Your task to perform on an android device: open app "Spotify: Music and Podcasts" (install if not already installed) and enter user name: "principled@inbox.com" and password: "arrests" Image 0: 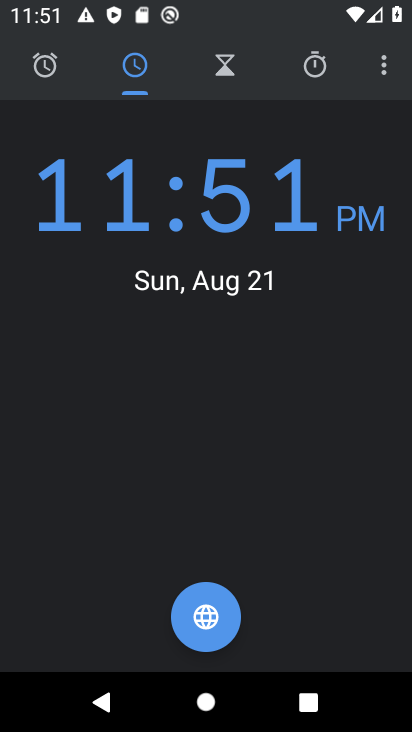
Step 0: press back button
Your task to perform on an android device: open app "Spotify: Music and Podcasts" (install if not already installed) and enter user name: "principled@inbox.com" and password: "arrests" Image 1: 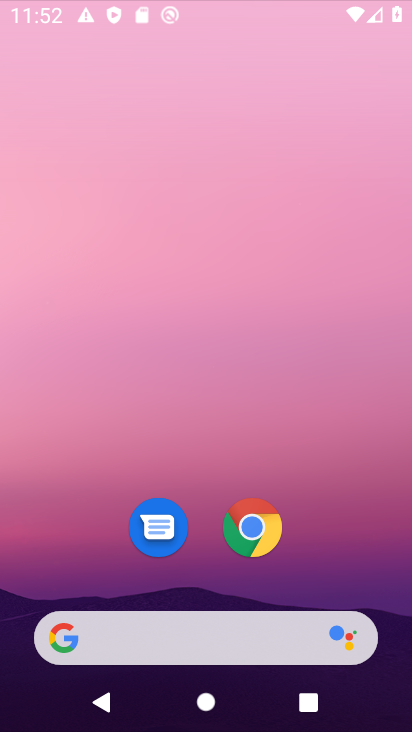
Step 1: drag from (130, 579) to (244, 9)
Your task to perform on an android device: open app "Spotify: Music and Podcasts" (install if not already installed) and enter user name: "principled@inbox.com" and password: "arrests" Image 2: 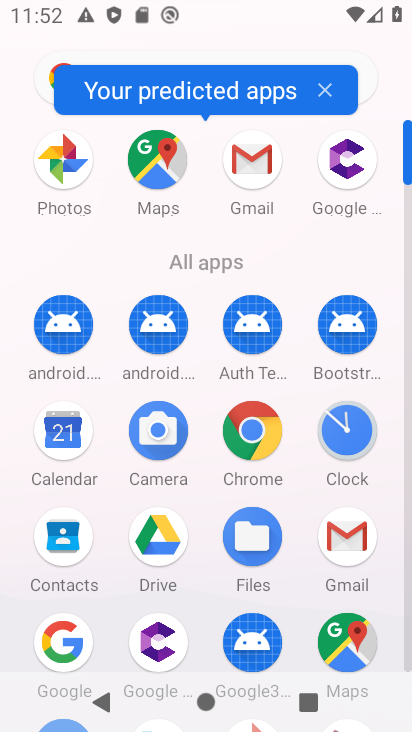
Step 2: drag from (174, 613) to (260, 77)
Your task to perform on an android device: open app "Spotify: Music and Podcasts" (install if not already installed) and enter user name: "principled@inbox.com" and password: "arrests" Image 3: 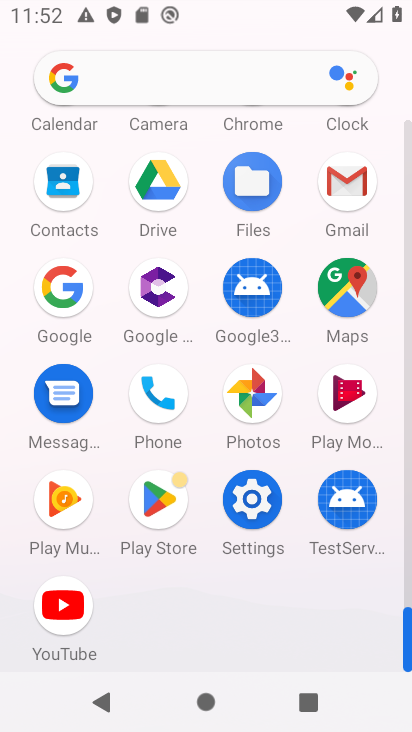
Step 3: click (163, 501)
Your task to perform on an android device: open app "Spotify: Music and Podcasts" (install if not already installed) and enter user name: "principled@inbox.com" and password: "arrests" Image 4: 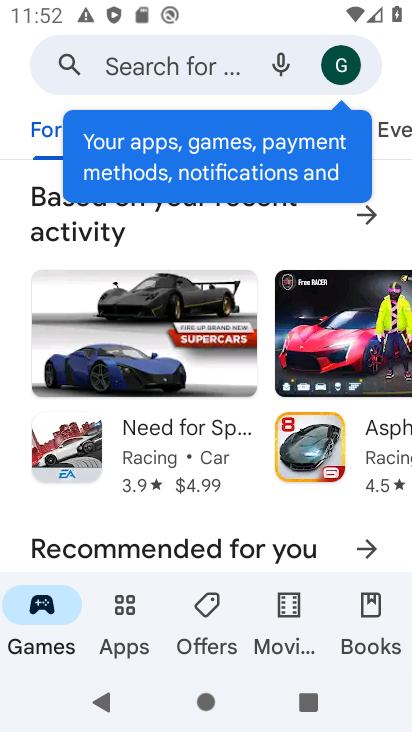
Step 4: click (193, 62)
Your task to perform on an android device: open app "Spotify: Music and Podcasts" (install if not already installed) and enter user name: "principled@inbox.com" and password: "arrests" Image 5: 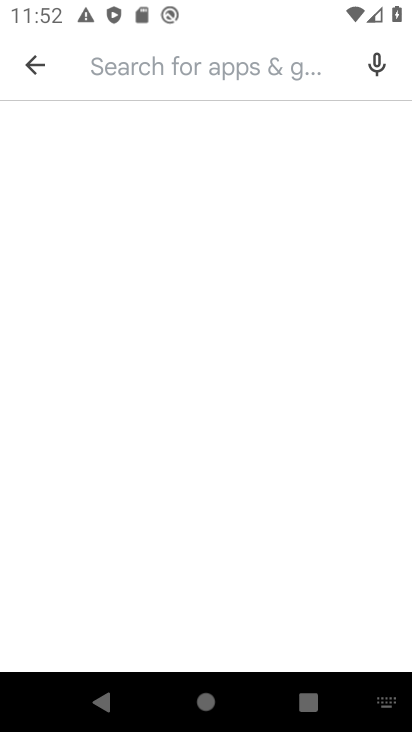
Step 5: click (162, 79)
Your task to perform on an android device: open app "Spotify: Music and Podcasts" (install if not already installed) and enter user name: "principled@inbox.com" and password: "arrests" Image 6: 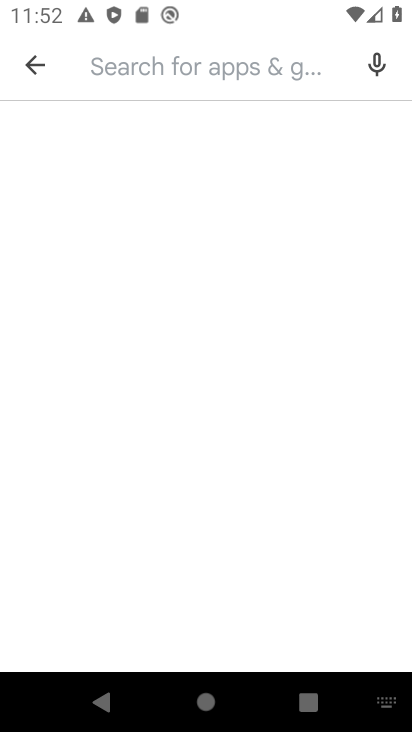
Step 6: type "Spotify: Music and Podcasts"
Your task to perform on an android device: open app "Spotify: Music and Podcasts" (install if not already installed) and enter user name: "principled@inbox.com" and password: "arrests" Image 7: 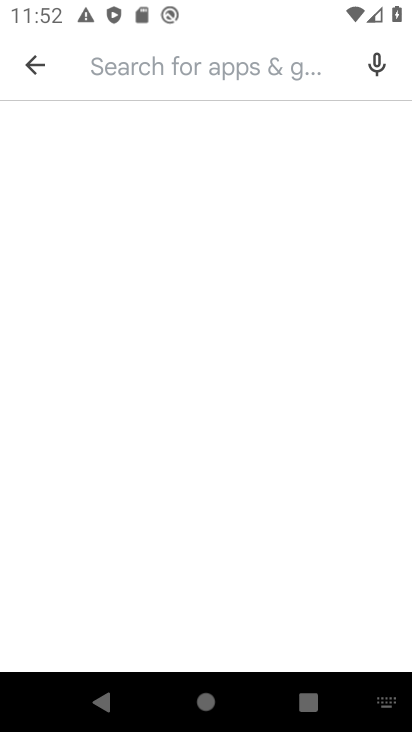
Step 7: click (300, 323)
Your task to perform on an android device: open app "Spotify: Music and Podcasts" (install if not already installed) and enter user name: "principled@inbox.com" and password: "arrests" Image 8: 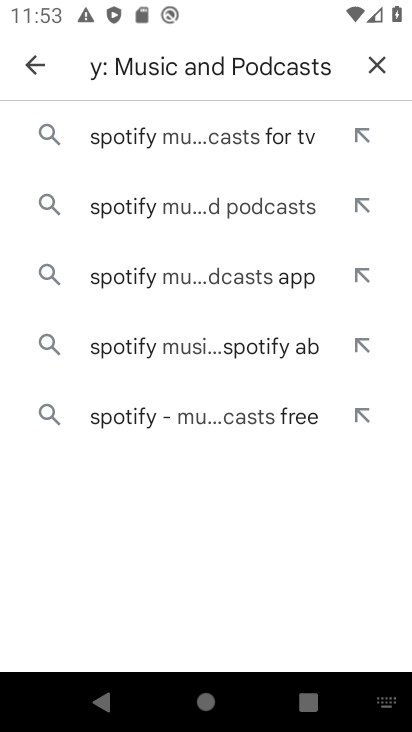
Step 8: click (189, 133)
Your task to perform on an android device: open app "Spotify: Music and Podcasts" (install if not already installed) and enter user name: "principled@inbox.com" and password: "arrests" Image 9: 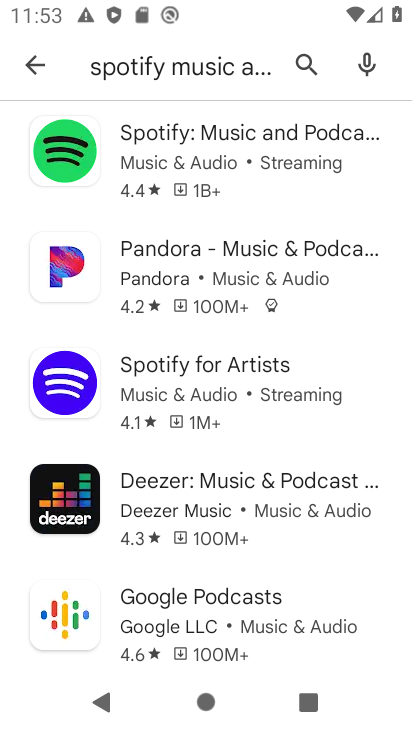
Step 9: click (195, 143)
Your task to perform on an android device: open app "Spotify: Music and Podcasts" (install if not already installed) and enter user name: "principled@inbox.com" and password: "arrests" Image 10: 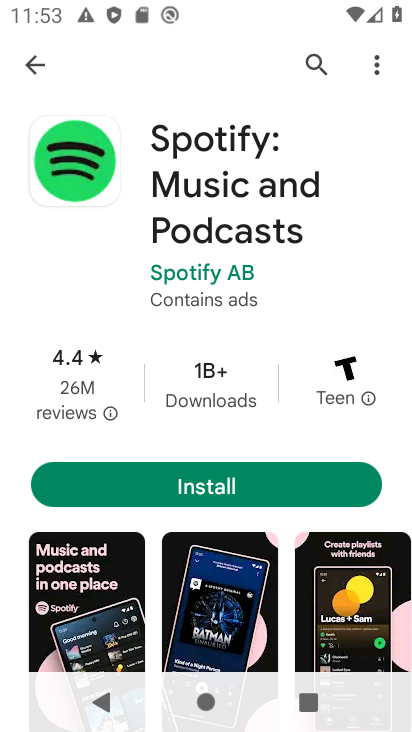
Step 10: click (242, 493)
Your task to perform on an android device: open app "Spotify: Music and Podcasts" (install if not already installed) and enter user name: "principled@inbox.com" and password: "arrests" Image 11: 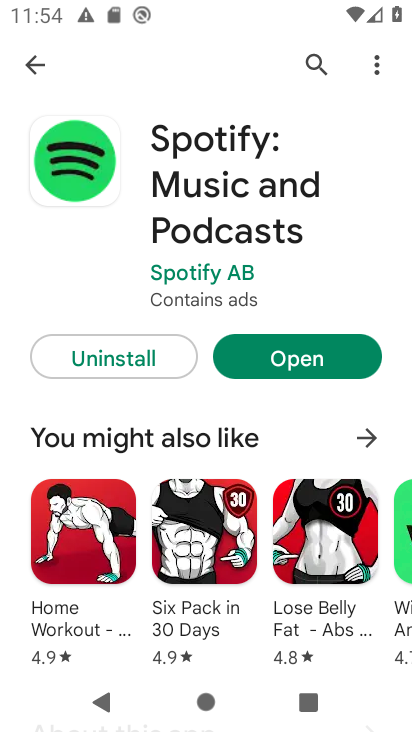
Step 11: click (301, 361)
Your task to perform on an android device: open app "Spotify: Music and Podcasts" (install if not already installed) and enter user name: "principled@inbox.com" and password: "arrests" Image 12: 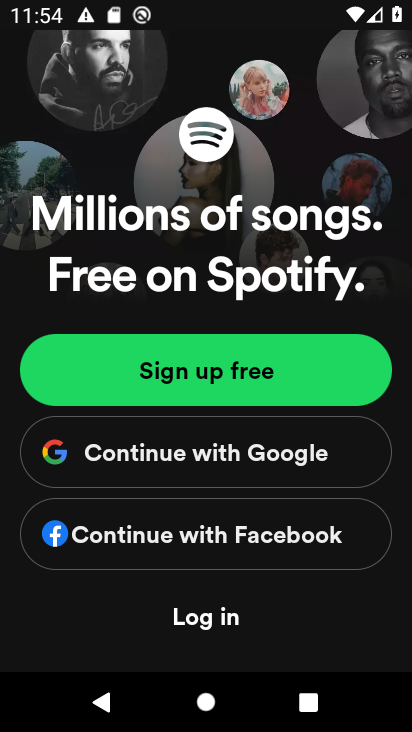
Step 12: click (221, 627)
Your task to perform on an android device: open app "Spotify: Music and Podcasts" (install if not already installed) and enter user name: "principled@inbox.com" and password: "arrests" Image 13: 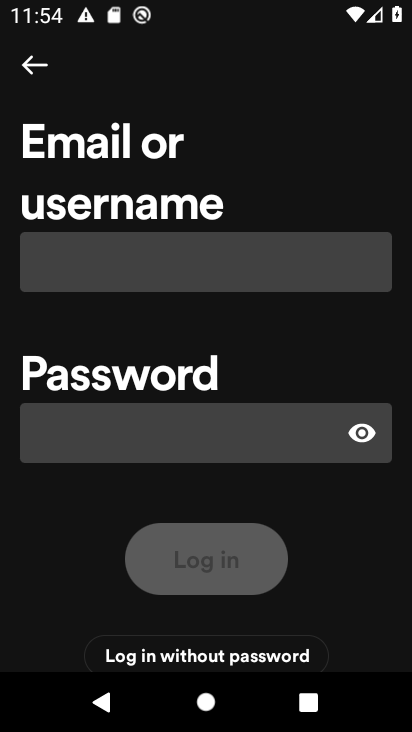
Step 13: click (126, 263)
Your task to perform on an android device: open app "Spotify: Music and Podcasts" (install if not already installed) and enter user name: "principled@inbox.com" and password: "arrests" Image 14: 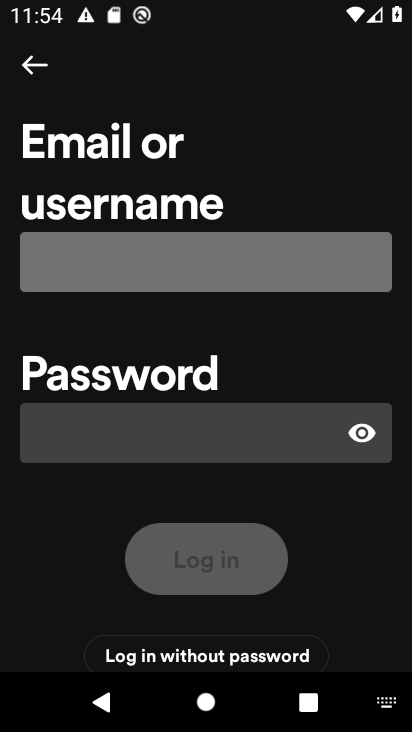
Step 14: type "principled@inbox.com"
Your task to perform on an android device: open app "Spotify: Music and Podcasts" (install if not already installed) and enter user name: "principled@inbox.com" and password: "arrests" Image 15: 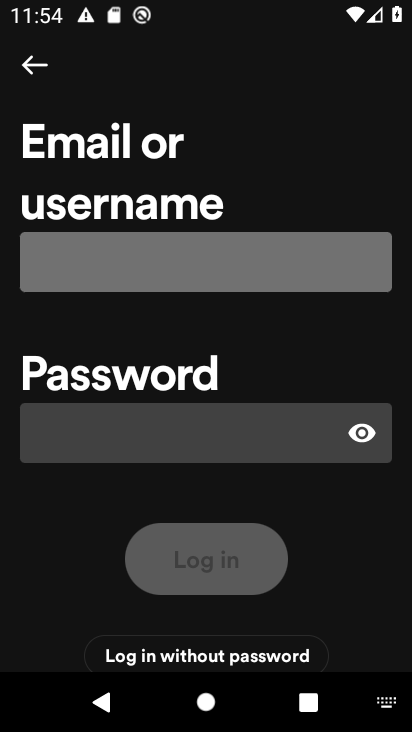
Step 15: click (47, 544)
Your task to perform on an android device: open app "Spotify: Music and Podcasts" (install if not already installed) and enter user name: "principled@inbox.com" and password: "arrests" Image 16: 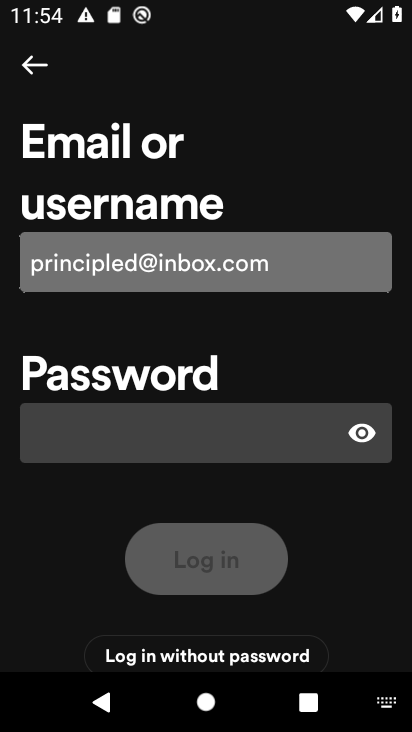
Step 16: click (75, 434)
Your task to perform on an android device: open app "Spotify: Music and Podcasts" (install if not already installed) and enter user name: "principled@inbox.com" and password: "arrests" Image 17: 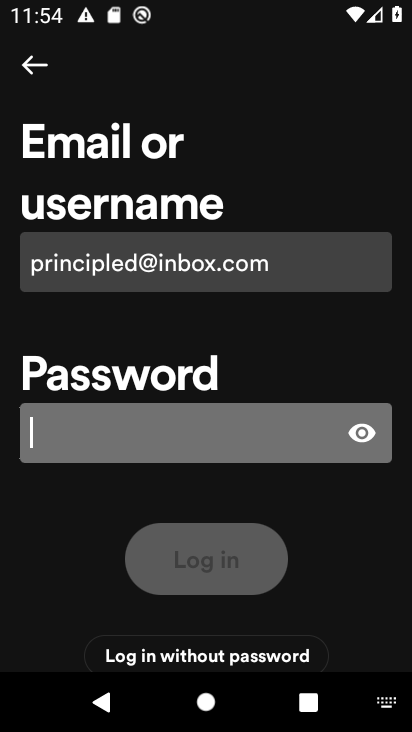
Step 17: type "arrests"
Your task to perform on an android device: open app "Spotify: Music and Podcasts" (install if not already installed) and enter user name: "principled@inbox.com" and password: "arrests" Image 18: 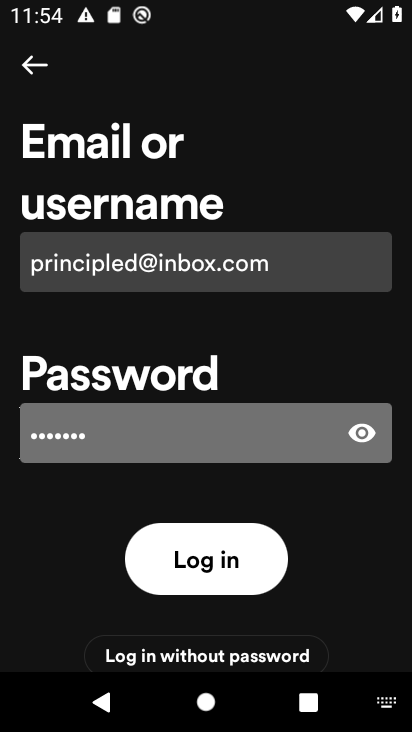
Step 18: task complete